Your task to perform on an android device: check data usage Image 0: 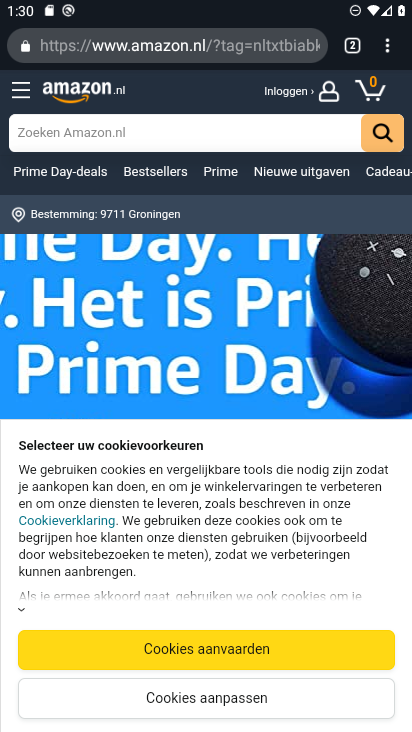
Step 0: press home button
Your task to perform on an android device: check data usage Image 1: 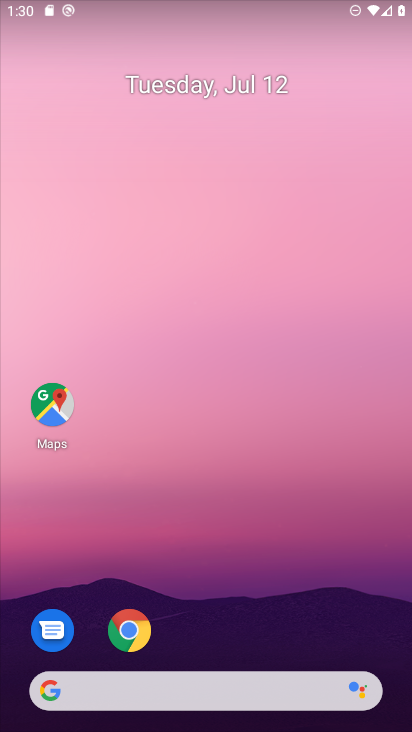
Step 1: drag from (381, 630) to (343, 86)
Your task to perform on an android device: check data usage Image 2: 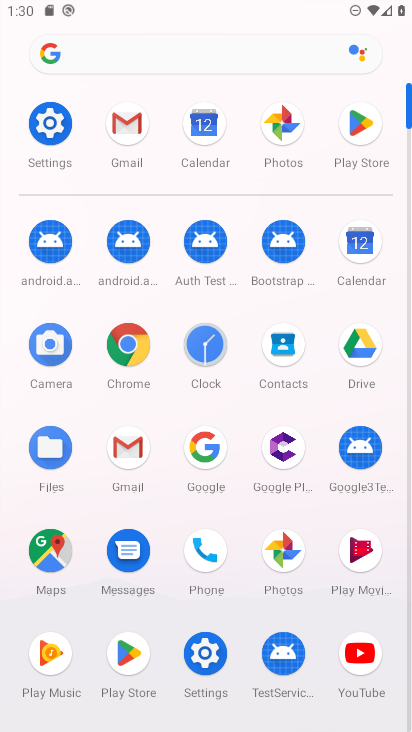
Step 2: click (205, 650)
Your task to perform on an android device: check data usage Image 3: 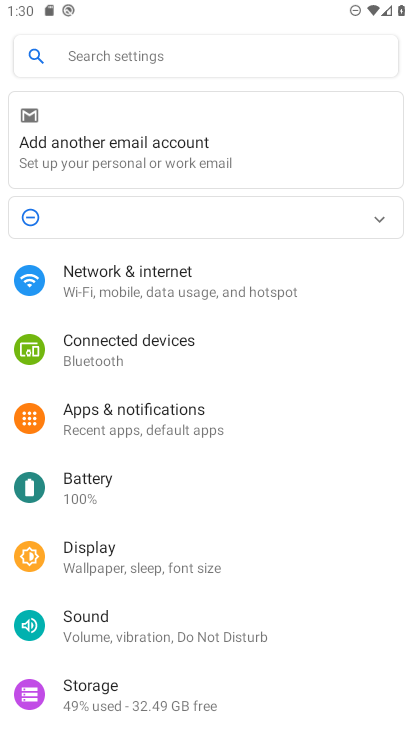
Step 3: click (140, 270)
Your task to perform on an android device: check data usage Image 4: 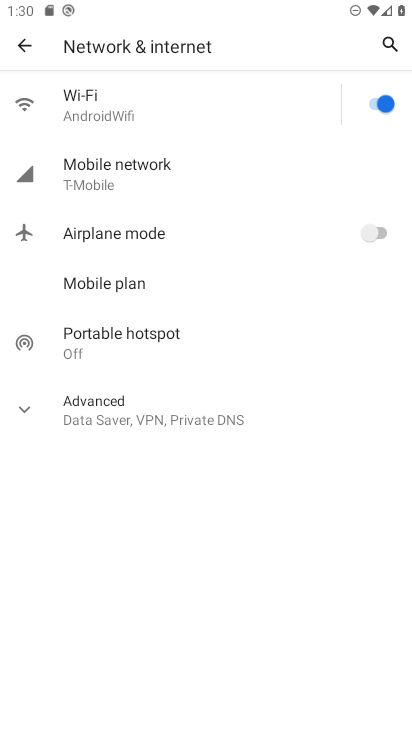
Step 4: click (96, 172)
Your task to perform on an android device: check data usage Image 5: 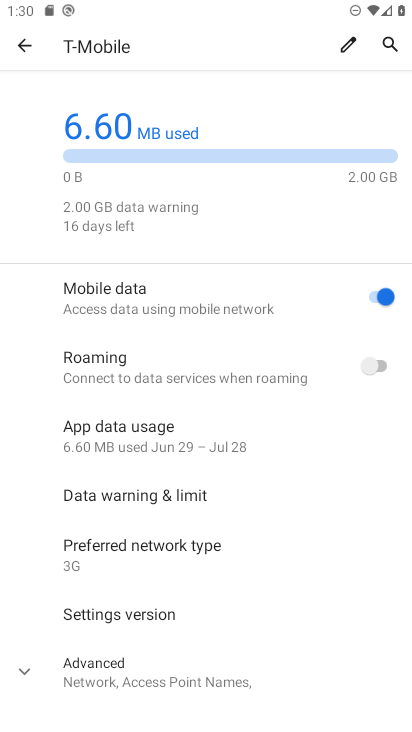
Step 5: task complete